Your task to perform on an android device: Go to accessibility settings Image 0: 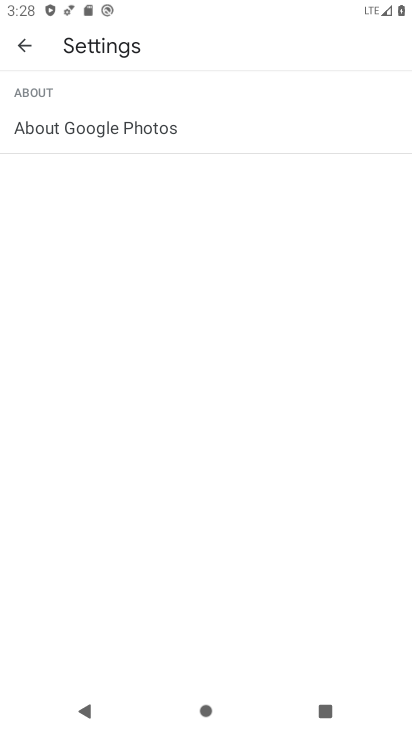
Step 0: press home button
Your task to perform on an android device: Go to accessibility settings Image 1: 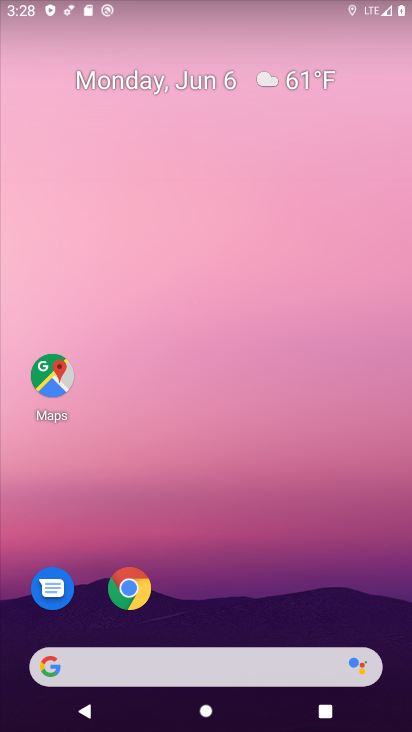
Step 1: drag from (244, 620) to (200, 288)
Your task to perform on an android device: Go to accessibility settings Image 2: 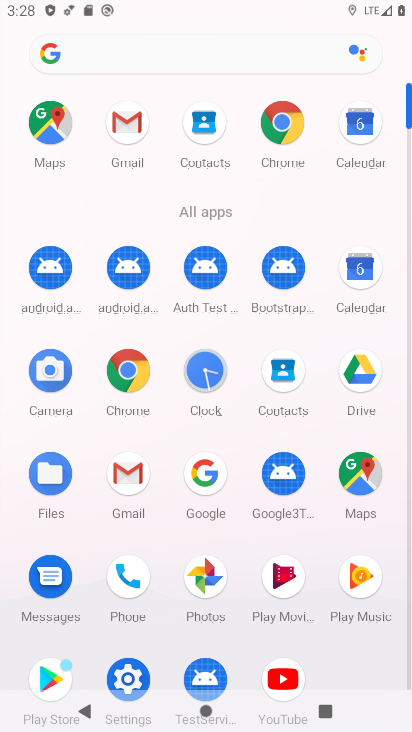
Step 2: click (130, 677)
Your task to perform on an android device: Go to accessibility settings Image 3: 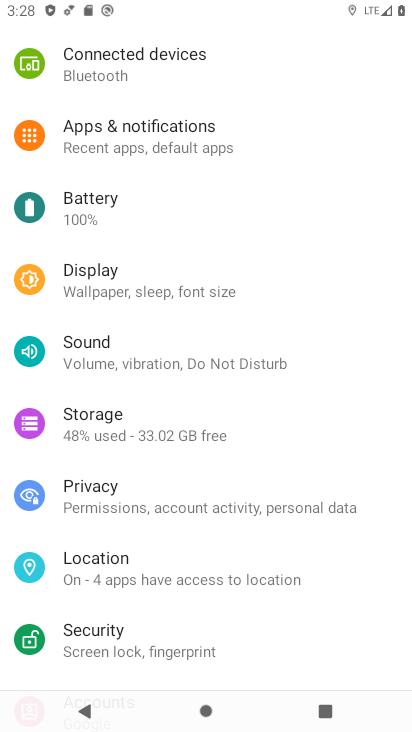
Step 3: drag from (199, 560) to (190, 408)
Your task to perform on an android device: Go to accessibility settings Image 4: 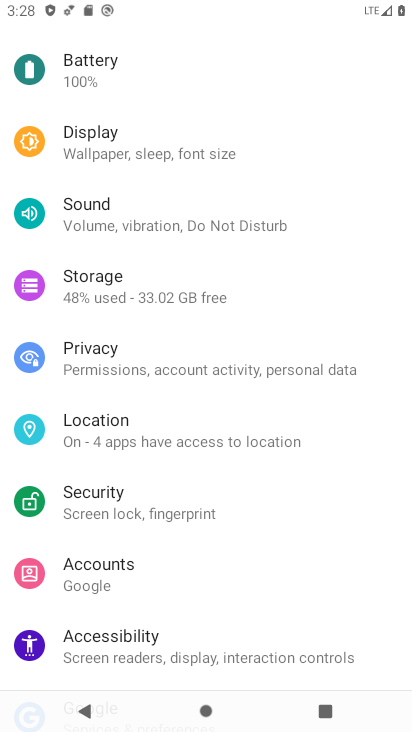
Step 4: click (192, 647)
Your task to perform on an android device: Go to accessibility settings Image 5: 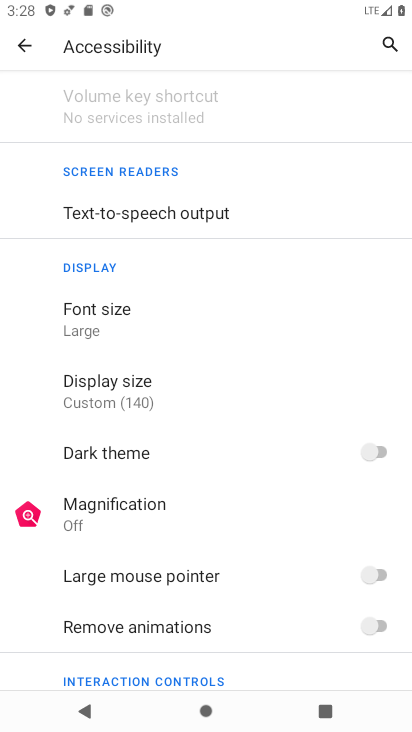
Step 5: task complete